Your task to perform on an android device: show emergency info Image 0: 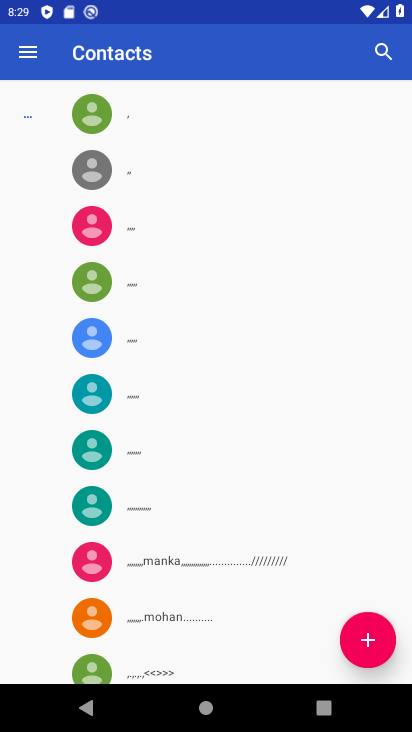
Step 0: press home button
Your task to perform on an android device: show emergency info Image 1: 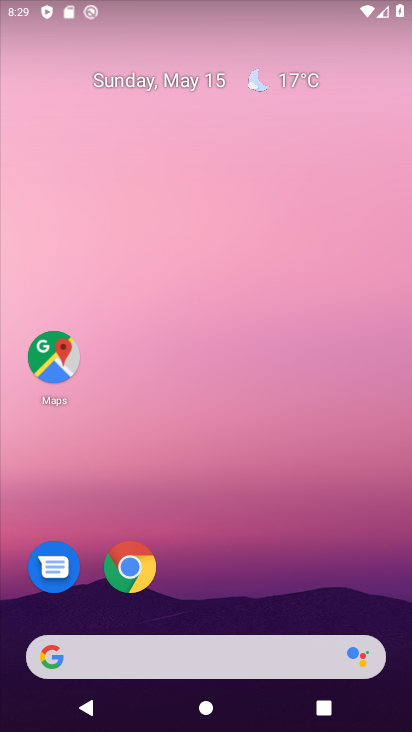
Step 1: drag from (206, 646) to (52, 234)
Your task to perform on an android device: show emergency info Image 2: 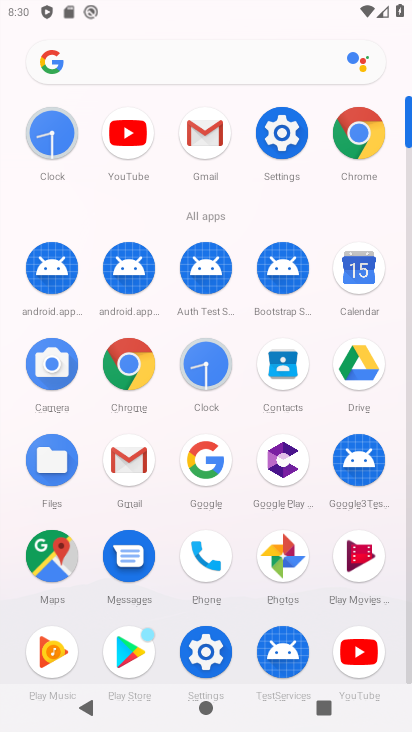
Step 2: click (192, 652)
Your task to perform on an android device: show emergency info Image 3: 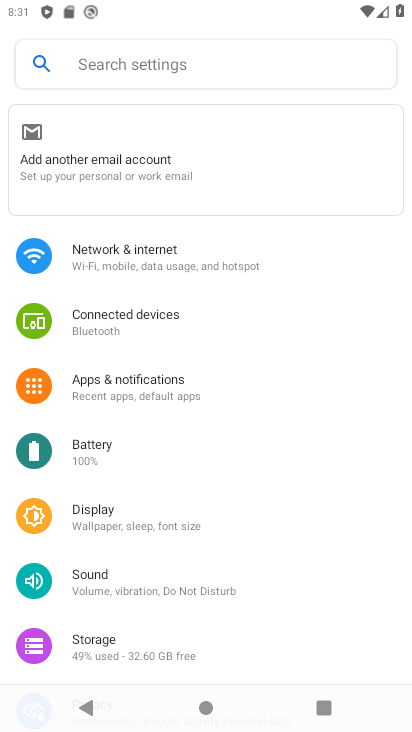
Step 3: drag from (168, 632) to (241, 24)
Your task to perform on an android device: show emergency info Image 4: 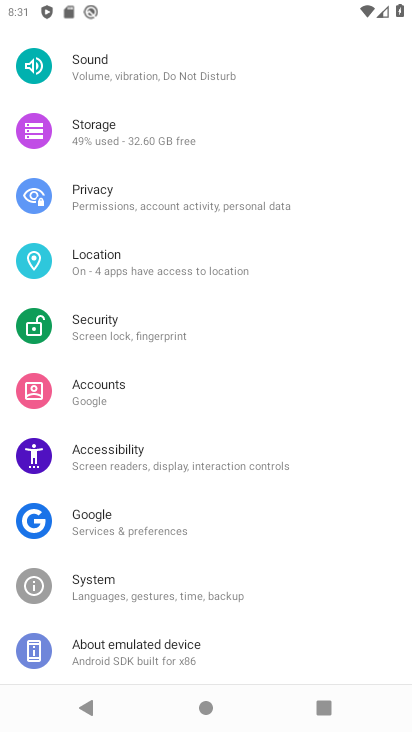
Step 4: click (198, 660)
Your task to perform on an android device: show emergency info Image 5: 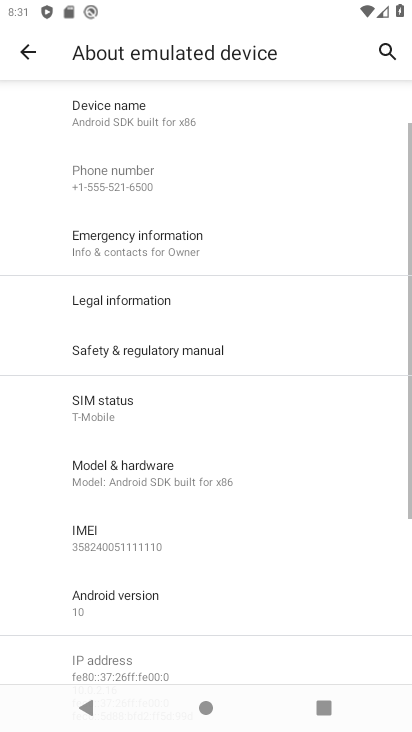
Step 5: click (114, 252)
Your task to perform on an android device: show emergency info Image 6: 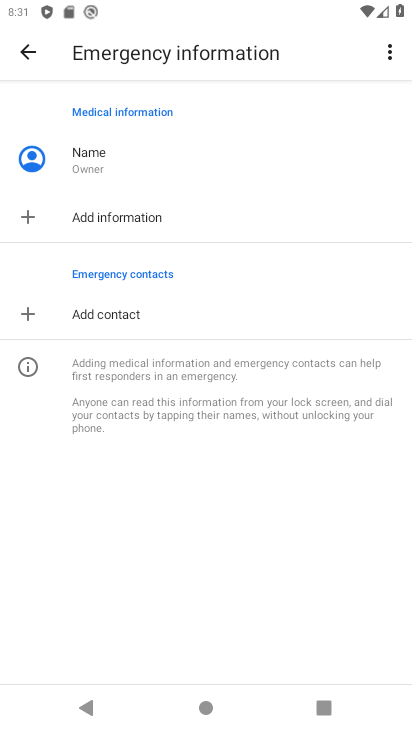
Step 6: task complete